Your task to perform on an android device: What's the weather going to be this weekend? Image 0: 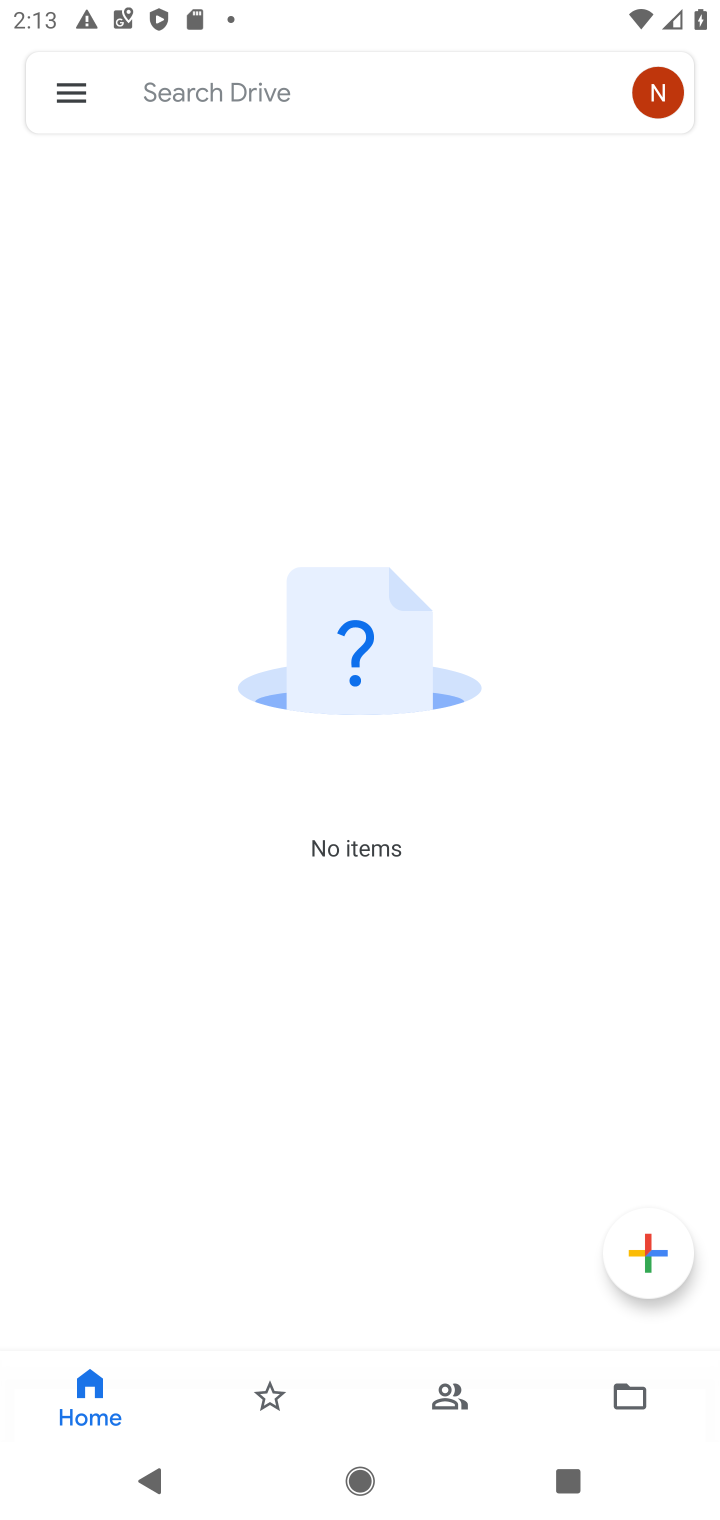
Step 0: press home button
Your task to perform on an android device: What's the weather going to be this weekend? Image 1: 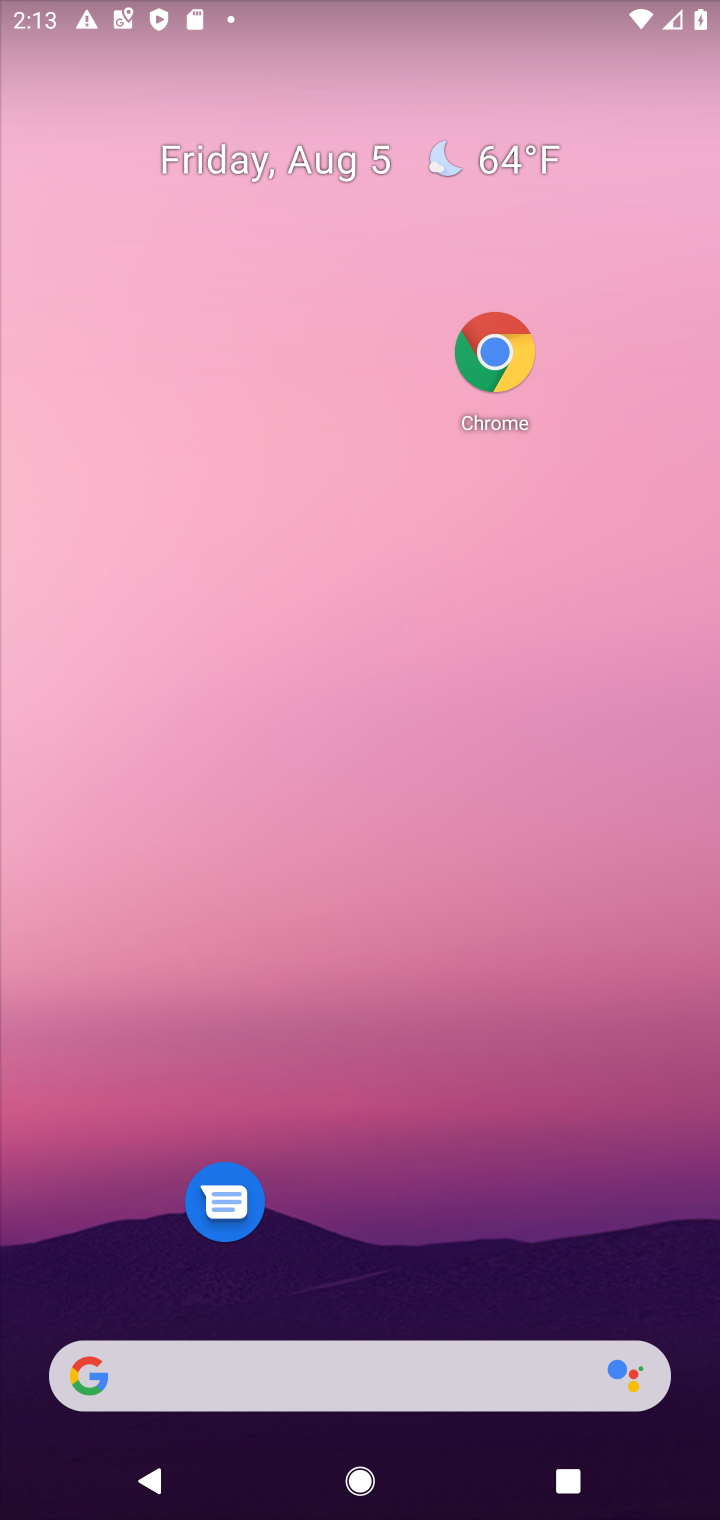
Step 1: click (474, 162)
Your task to perform on an android device: What's the weather going to be this weekend? Image 2: 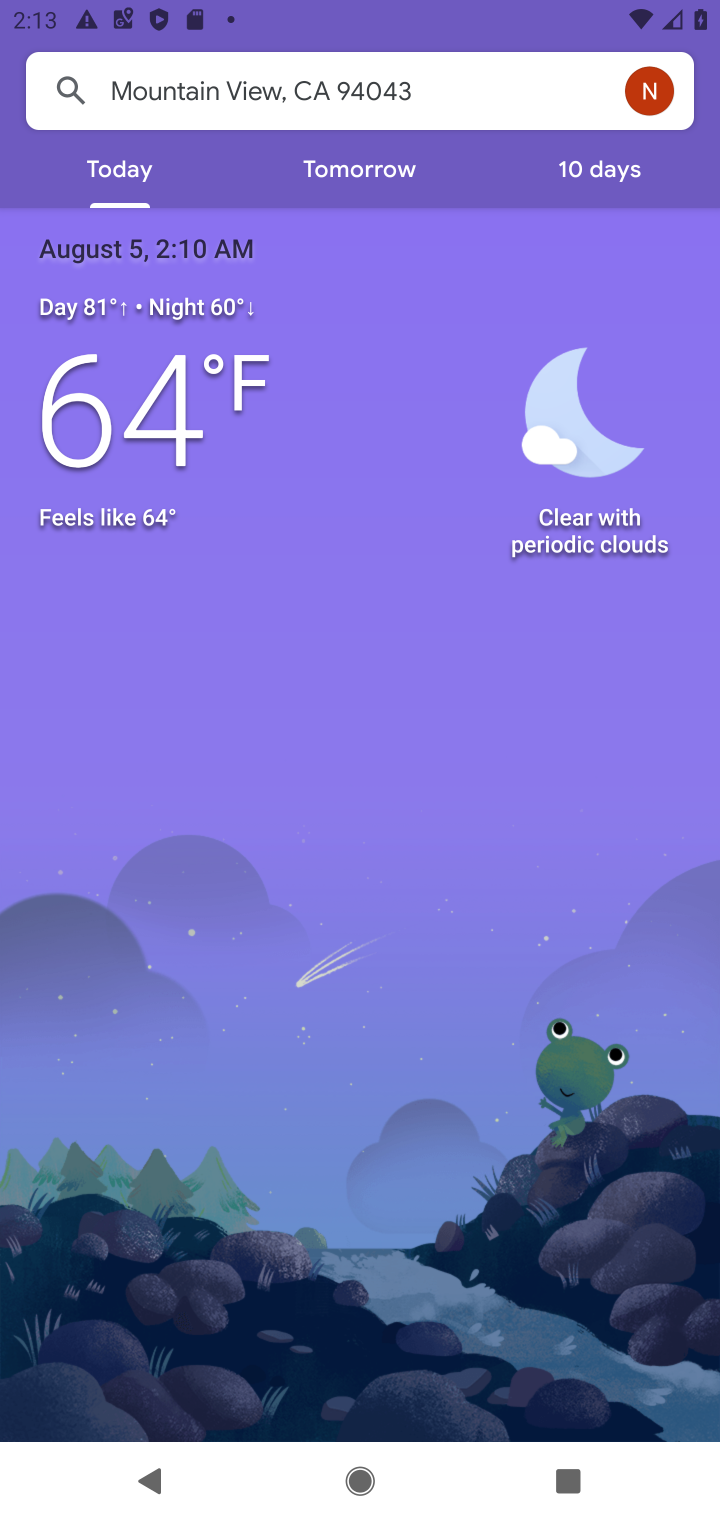
Step 2: click (629, 178)
Your task to perform on an android device: What's the weather going to be this weekend? Image 3: 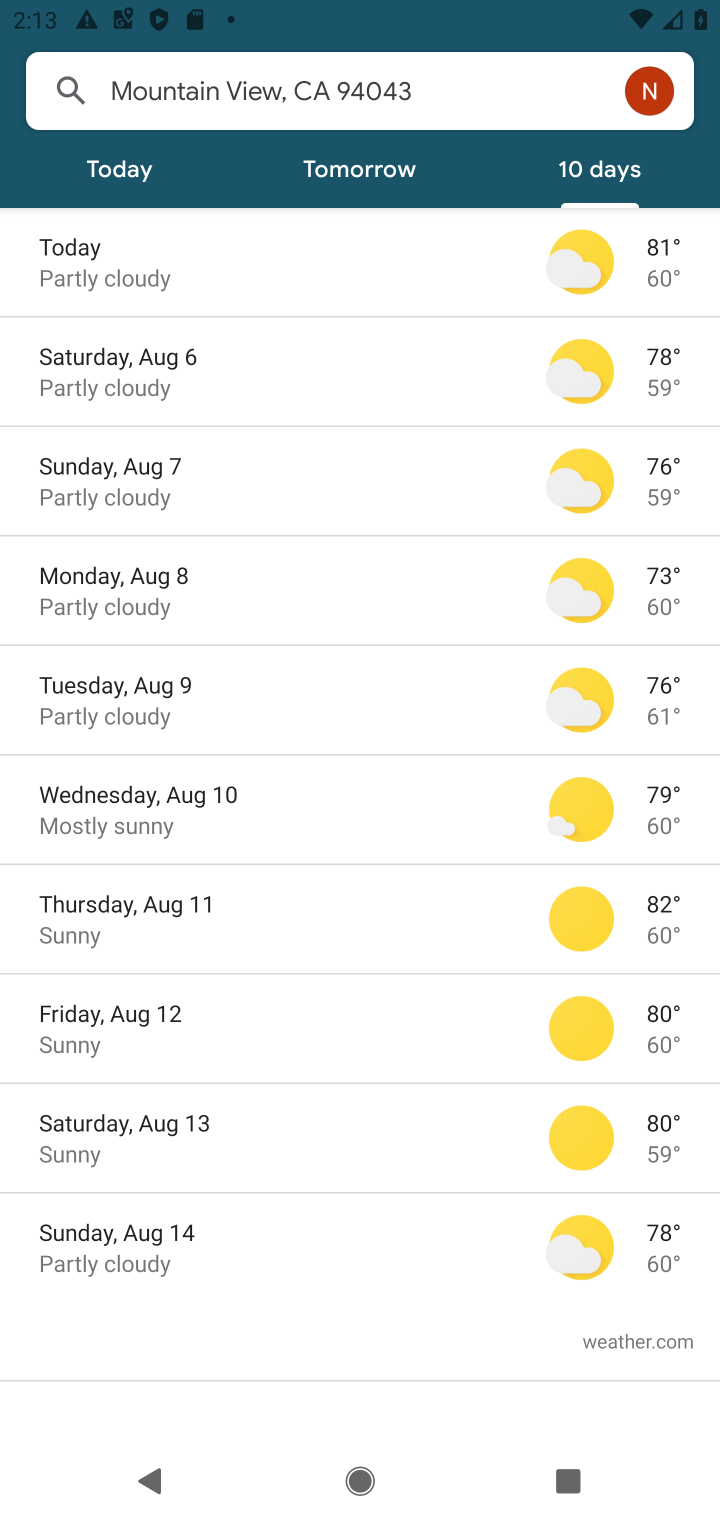
Step 3: click (123, 470)
Your task to perform on an android device: What's the weather going to be this weekend? Image 4: 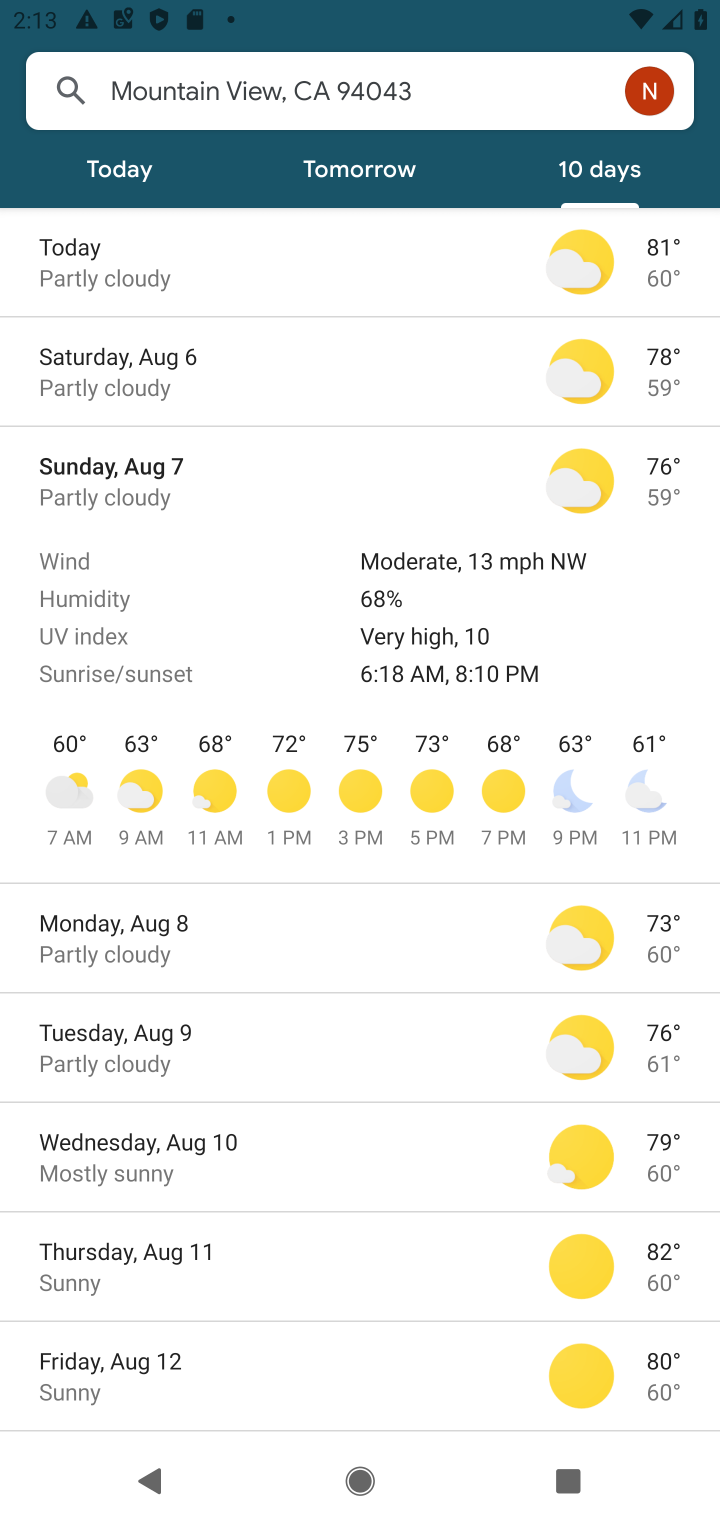
Step 4: task complete